Your task to perform on an android device: Open battery settings Image 0: 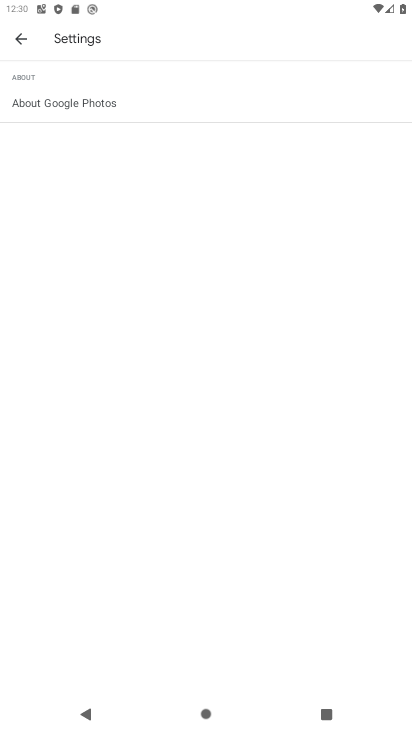
Step 0: press home button
Your task to perform on an android device: Open battery settings Image 1: 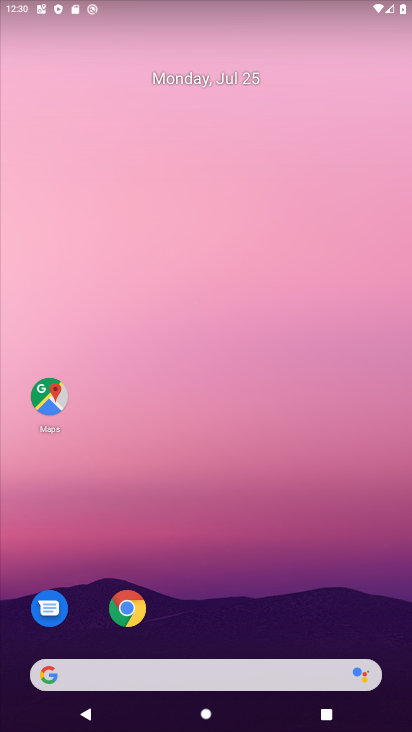
Step 1: drag from (245, 655) to (223, 4)
Your task to perform on an android device: Open battery settings Image 2: 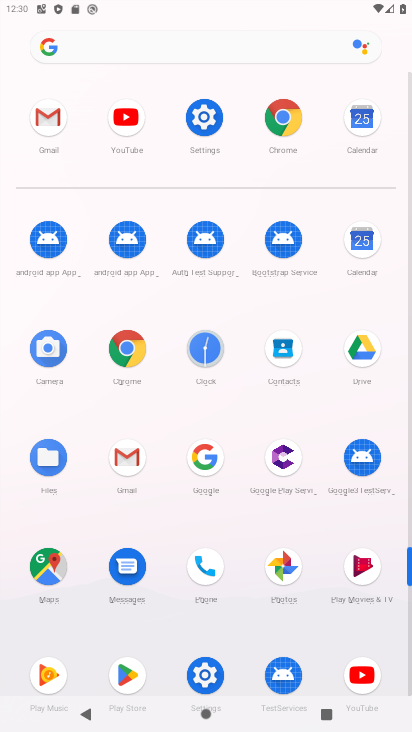
Step 2: click (215, 132)
Your task to perform on an android device: Open battery settings Image 3: 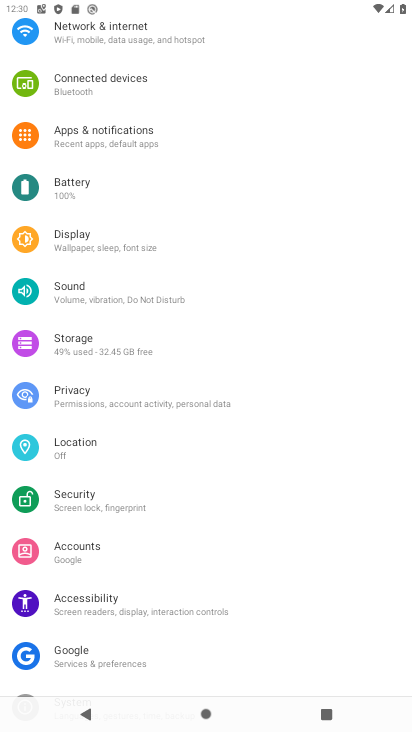
Step 3: click (63, 194)
Your task to perform on an android device: Open battery settings Image 4: 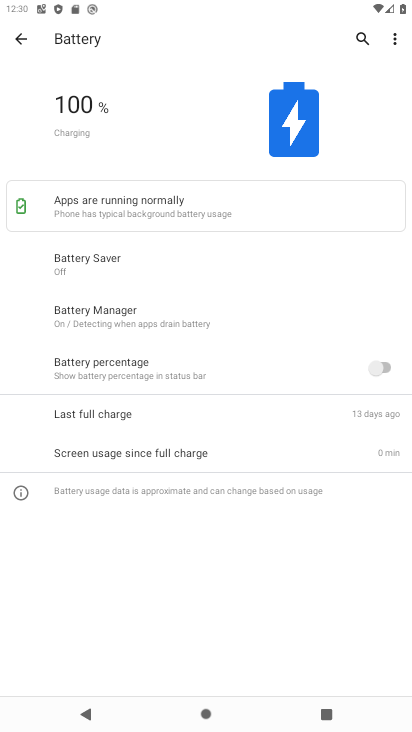
Step 4: task complete